Your task to perform on an android device: change text size in settings app Image 0: 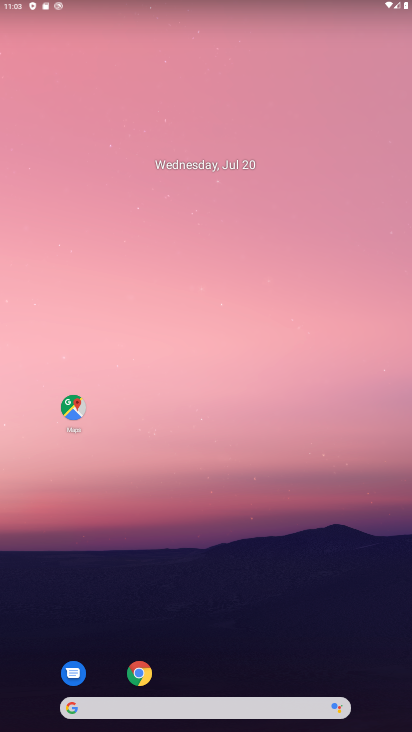
Step 0: drag from (254, 631) to (283, 37)
Your task to perform on an android device: change text size in settings app Image 1: 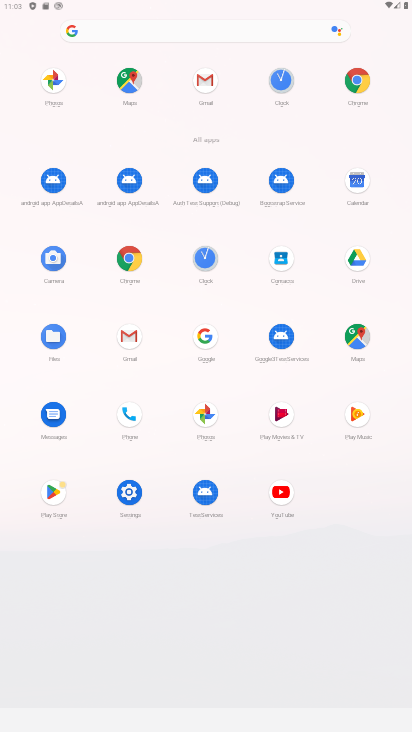
Step 1: click (138, 572)
Your task to perform on an android device: change text size in settings app Image 2: 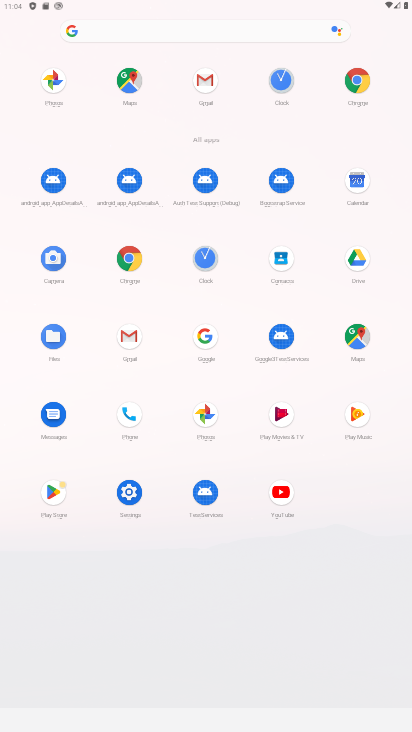
Step 2: click (132, 493)
Your task to perform on an android device: change text size in settings app Image 3: 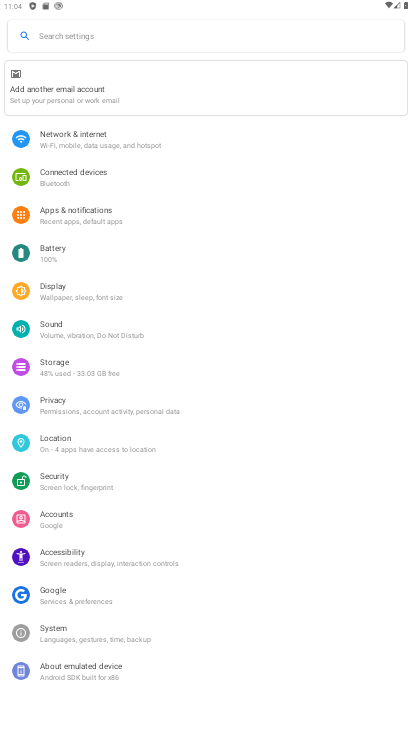
Step 3: click (49, 286)
Your task to perform on an android device: change text size in settings app Image 4: 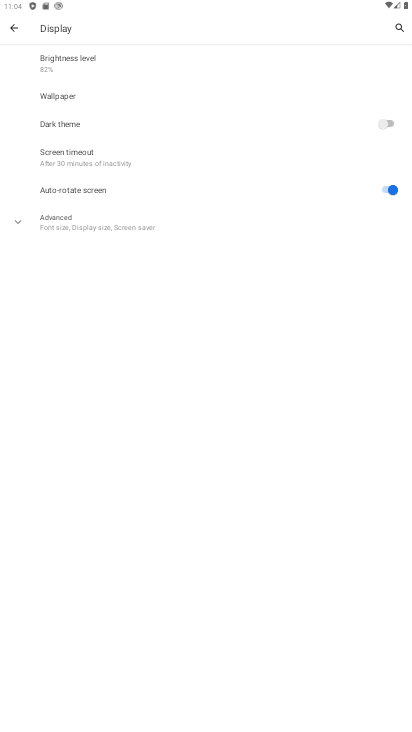
Step 4: click (77, 234)
Your task to perform on an android device: change text size in settings app Image 5: 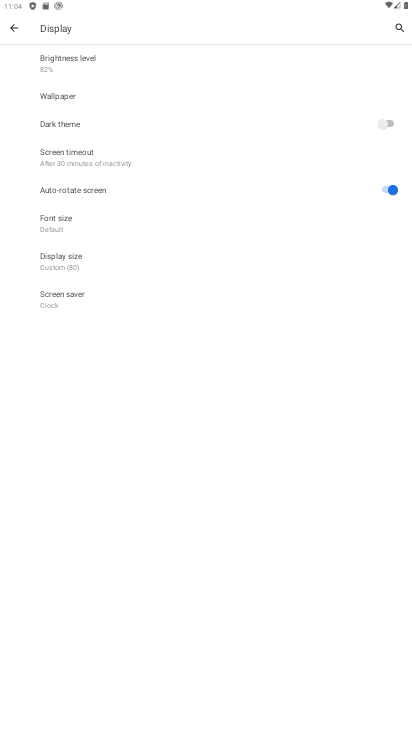
Step 5: click (73, 227)
Your task to perform on an android device: change text size in settings app Image 6: 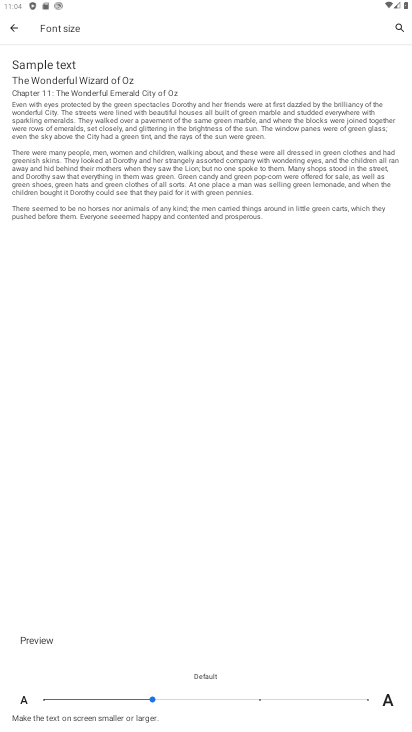
Step 6: click (390, 701)
Your task to perform on an android device: change text size in settings app Image 7: 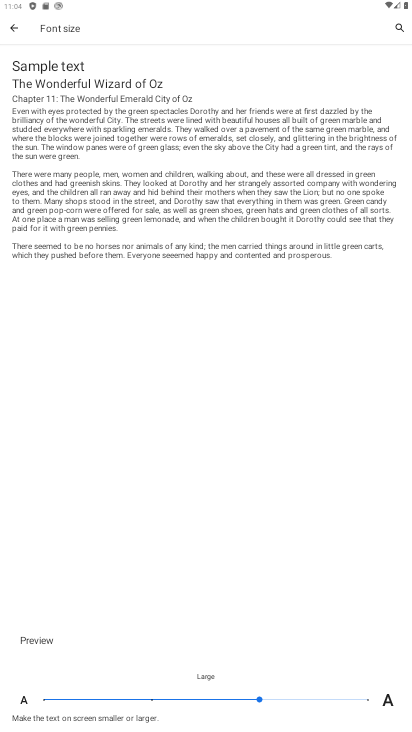
Step 7: click (390, 701)
Your task to perform on an android device: change text size in settings app Image 8: 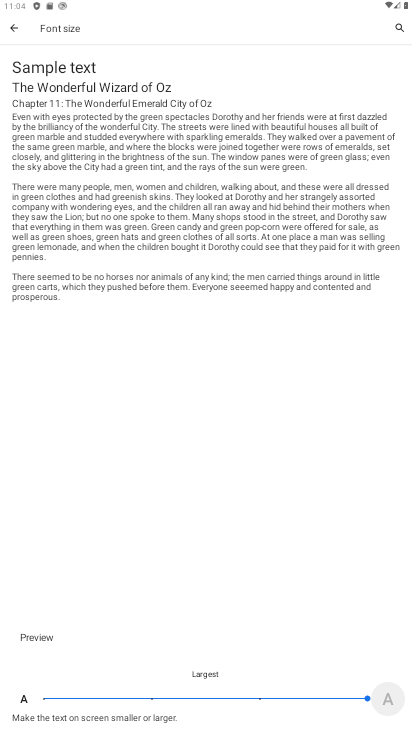
Step 8: task complete